Your task to perform on an android device: visit the assistant section in the google photos Image 0: 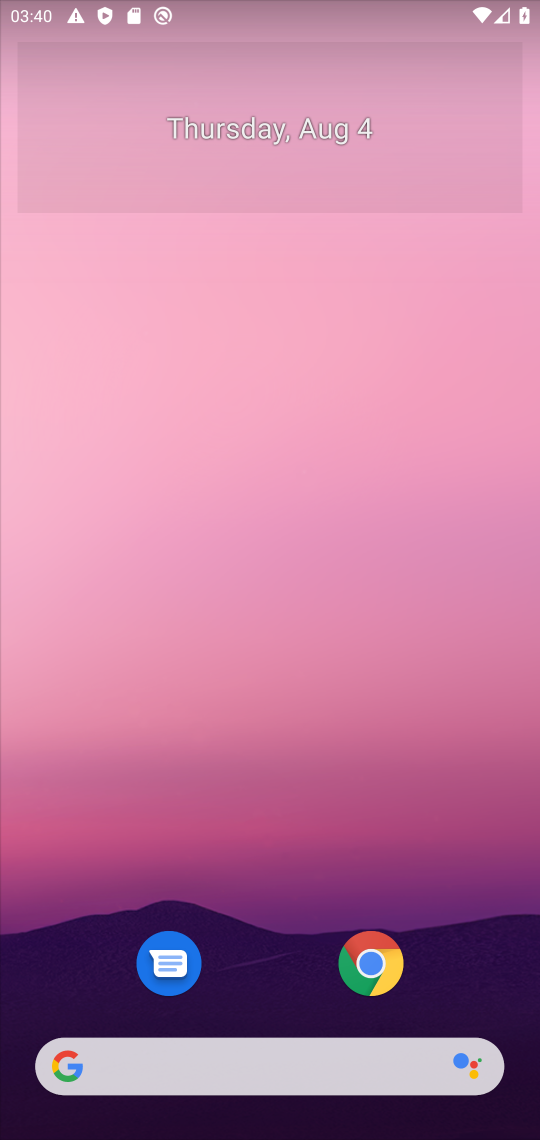
Step 0: click (477, 65)
Your task to perform on an android device: visit the assistant section in the google photos Image 1: 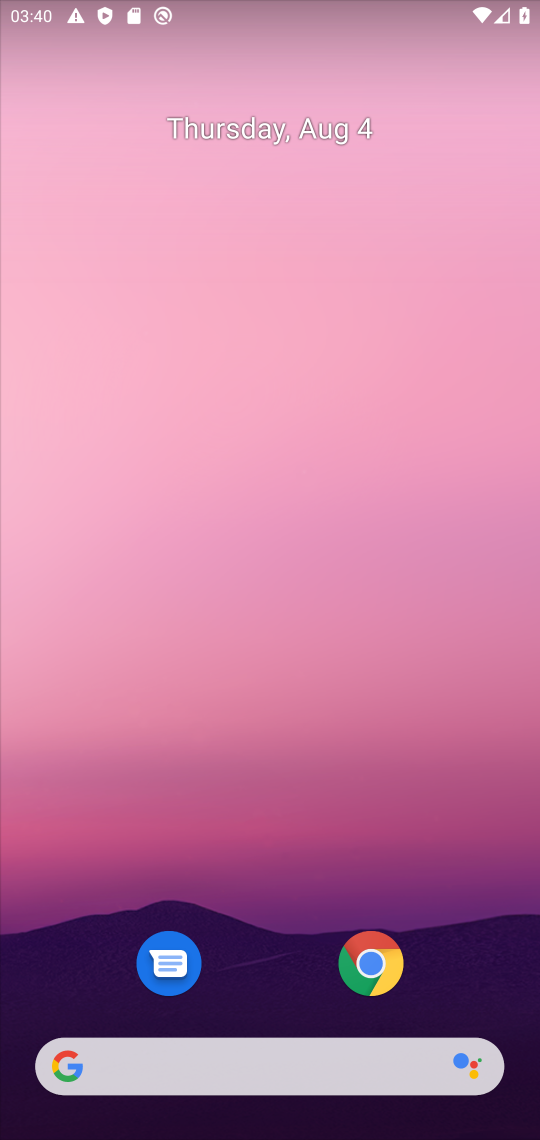
Step 1: drag from (472, 832) to (474, 58)
Your task to perform on an android device: visit the assistant section in the google photos Image 2: 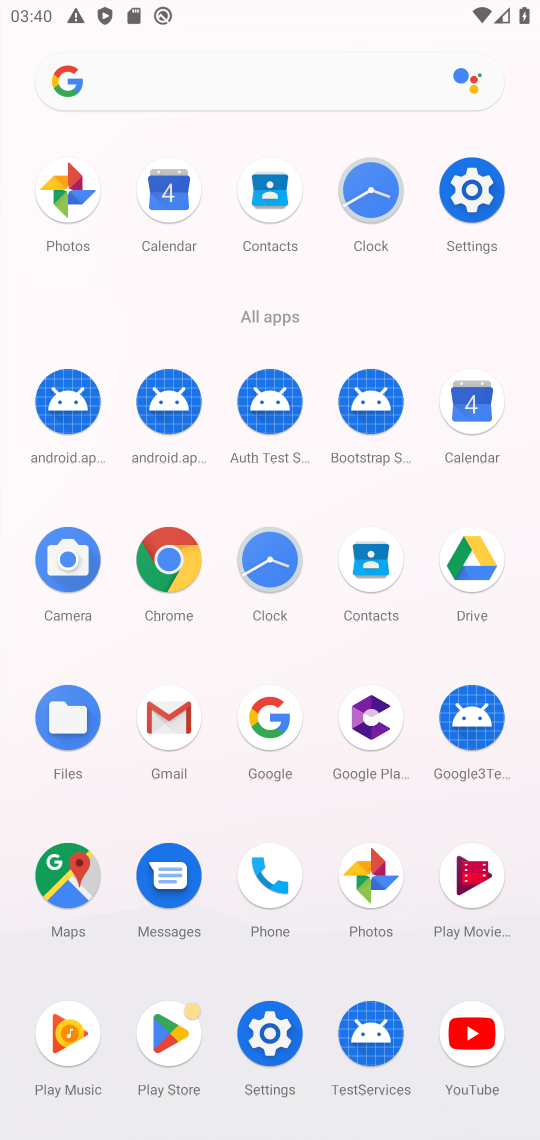
Step 2: click (374, 883)
Your task to perform on an android device: visit the assistant section in the google photos Image 3: 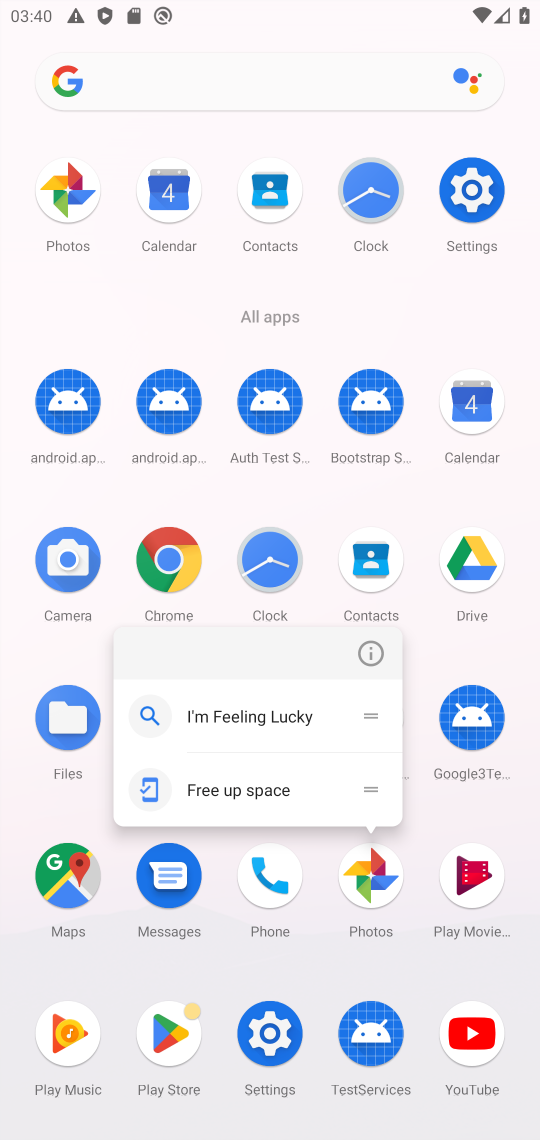
Step 3: click (374, 883)
Your task to perform on an android device: visit the assistant section in the google photos Image 4: 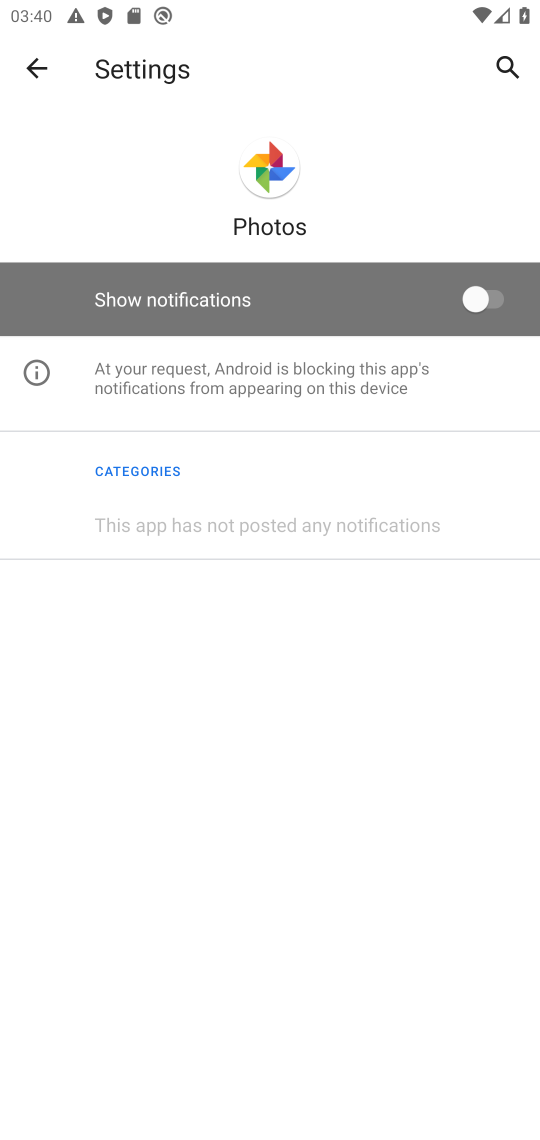
Step 4: click (36, 68)
Your task to perform on an android device: visit the assistant section in the google photos Image 5: 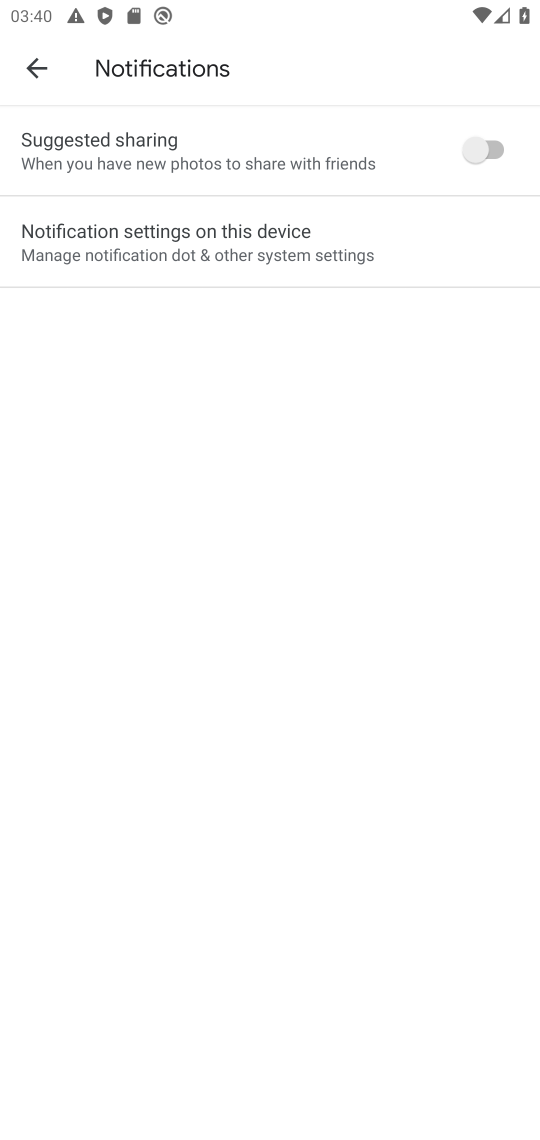
Step 5: click (36, 68)
Your task to perform on an android device: visit the assistant section in the google photos Image 6: 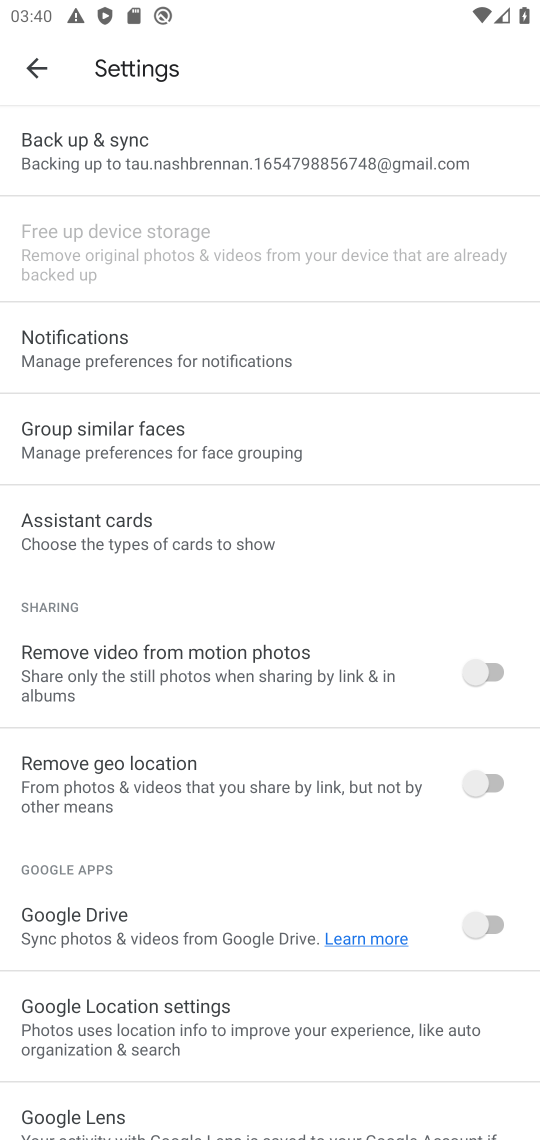
Step 6: click (36, 68)
Your task to perform on an android device: visit the assistant section in the google photos Image 7: 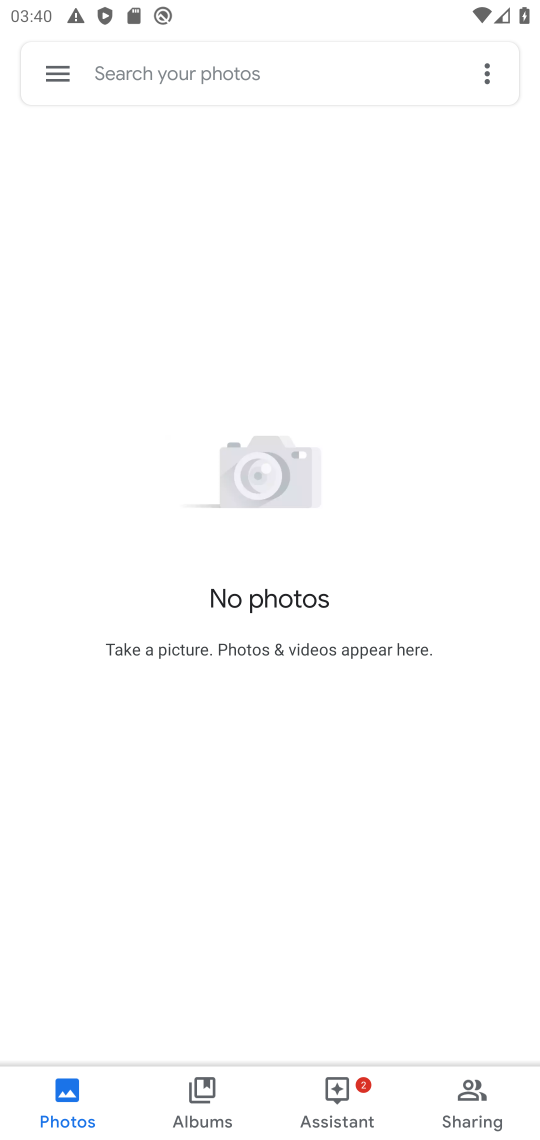
Step 7: click (342, 1120)
Your task to perform on an android device: visit the assistant section in the google photos Image 8: 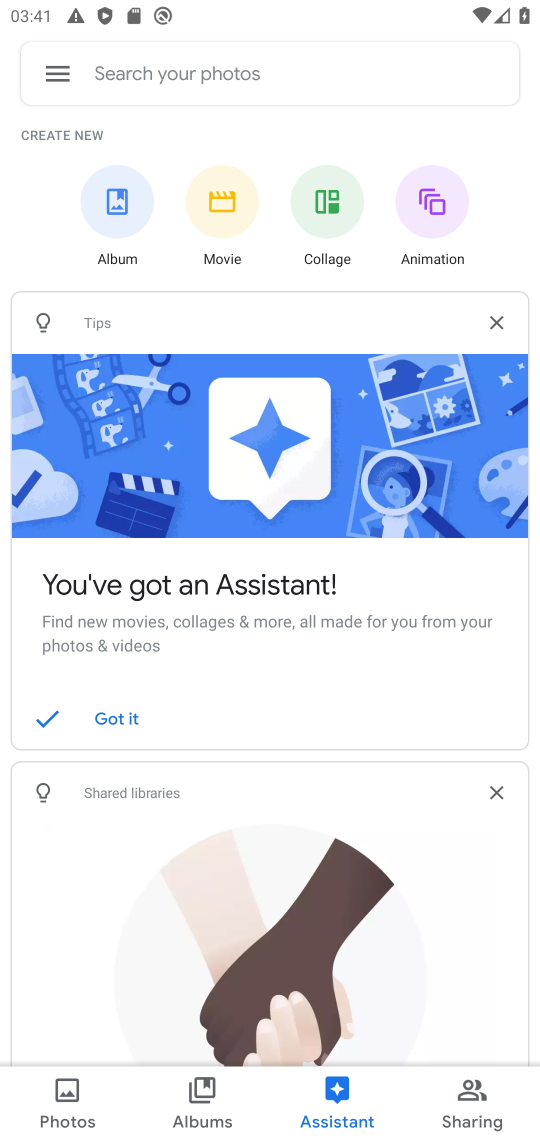
Step 8: task complete